Your task to perform on an android device: add a contact in the contacts app Image 0: 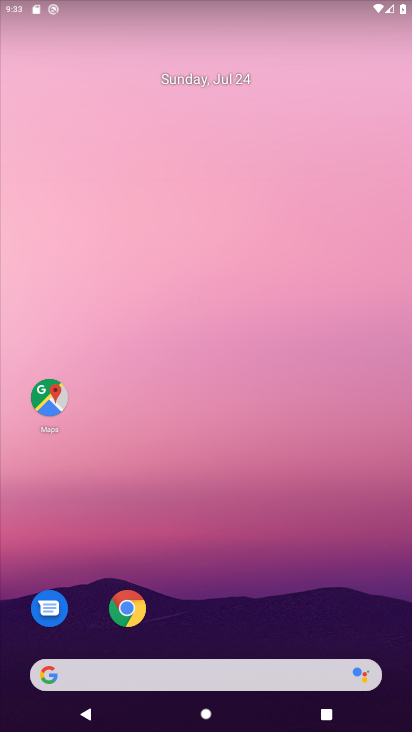
Step 0: drag from (242, 56) to (261, 6)
Your task to perform on an android device: add a contact in the contacts app Image 1: 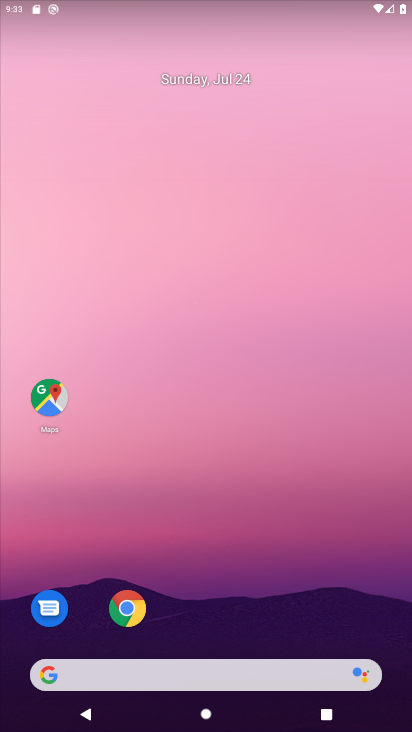
Step 1: drag from (256, 617) to (304, 0)
Your task to perform on an android device: add a contact in the contacts app Image 2: 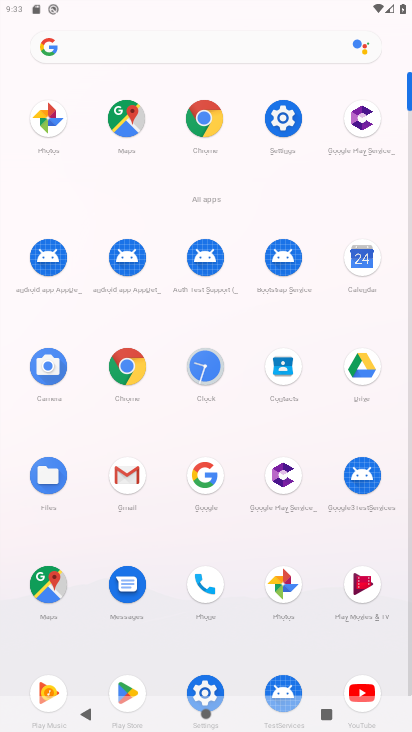
Step 2: click (279, 373)
Your task to perform on an android device: add a contact in the contacts app Image 3: 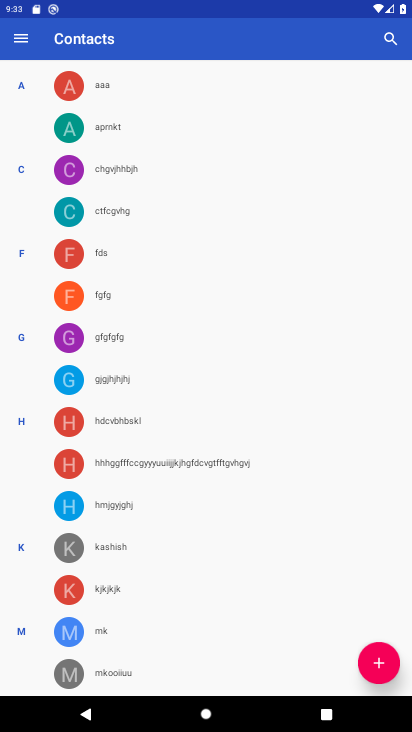
Step 3: click (383, 669)
Your task to perform on an android device: add a contact in the contacts app Image 4: 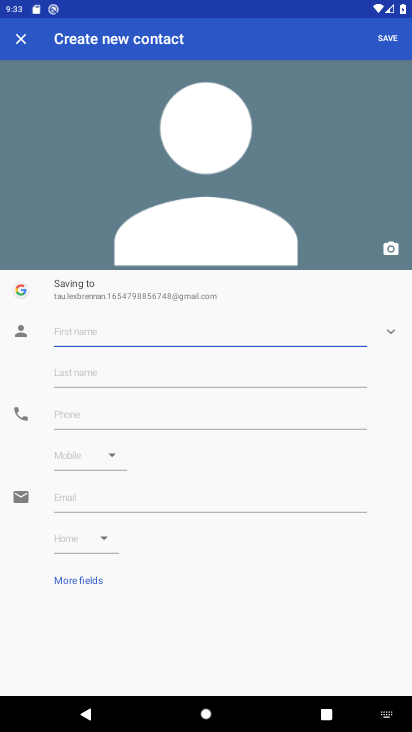
Step 4: click (395, 624)
Your task to perform on an android device: add a contact in the contacts app Image 5: 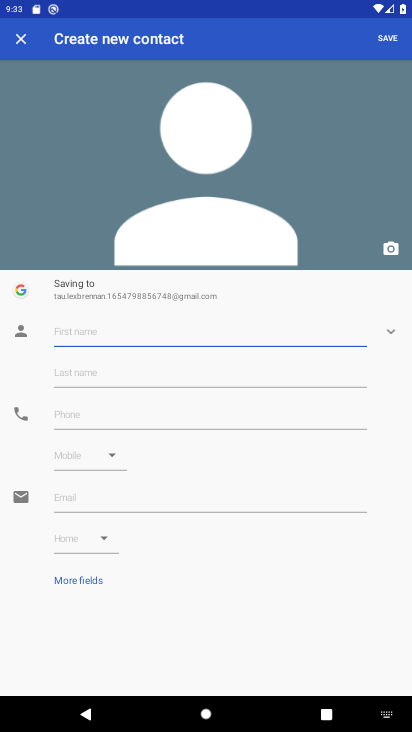
Step 5: type "nahi"
Your task to perform on an android device: add a contact in the contacts app Image 6: 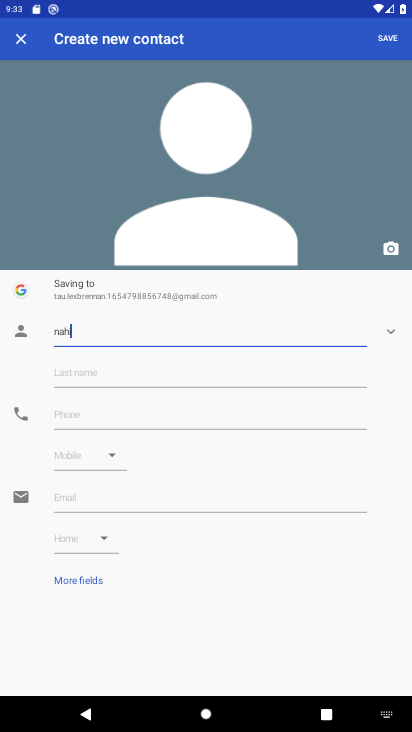
Step 6: click (117, 418)
Your task to perform on an android device: add a contact in the contacts app Image 7: 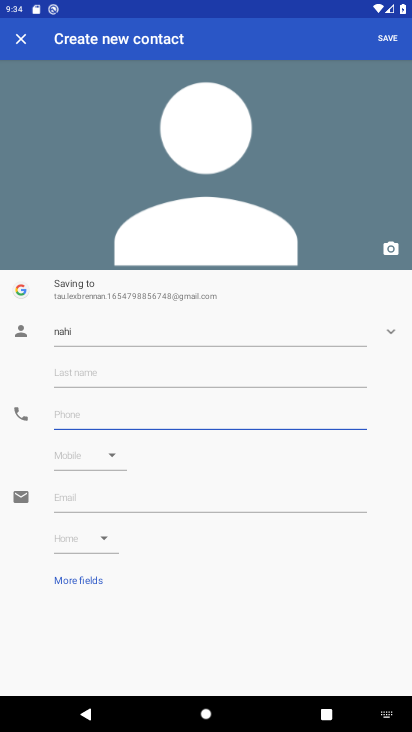
Step 7: type "8908776543"
Your task to perform on an android device: add a contact in the contacts app Image 8: 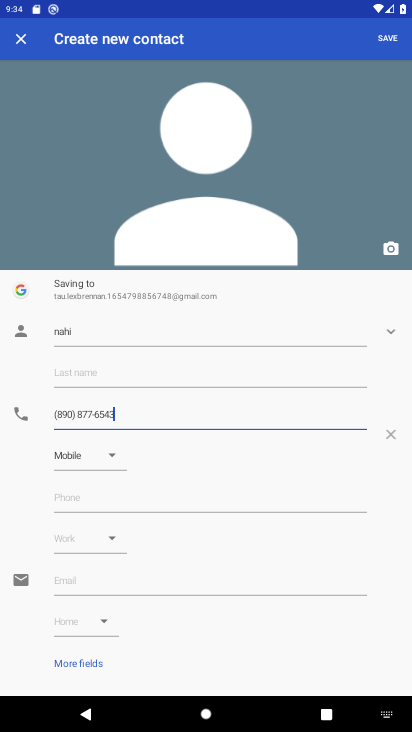
Step 8: click (392, 44)
Your task to perform on an android device: add a contact in the contacts app Image 9: 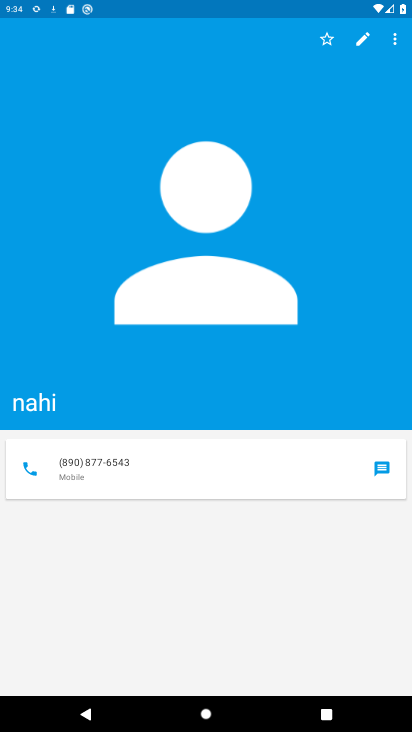
Step 9: task complete